Your task to perform on an android device: open sync settings in chrome Image 0: 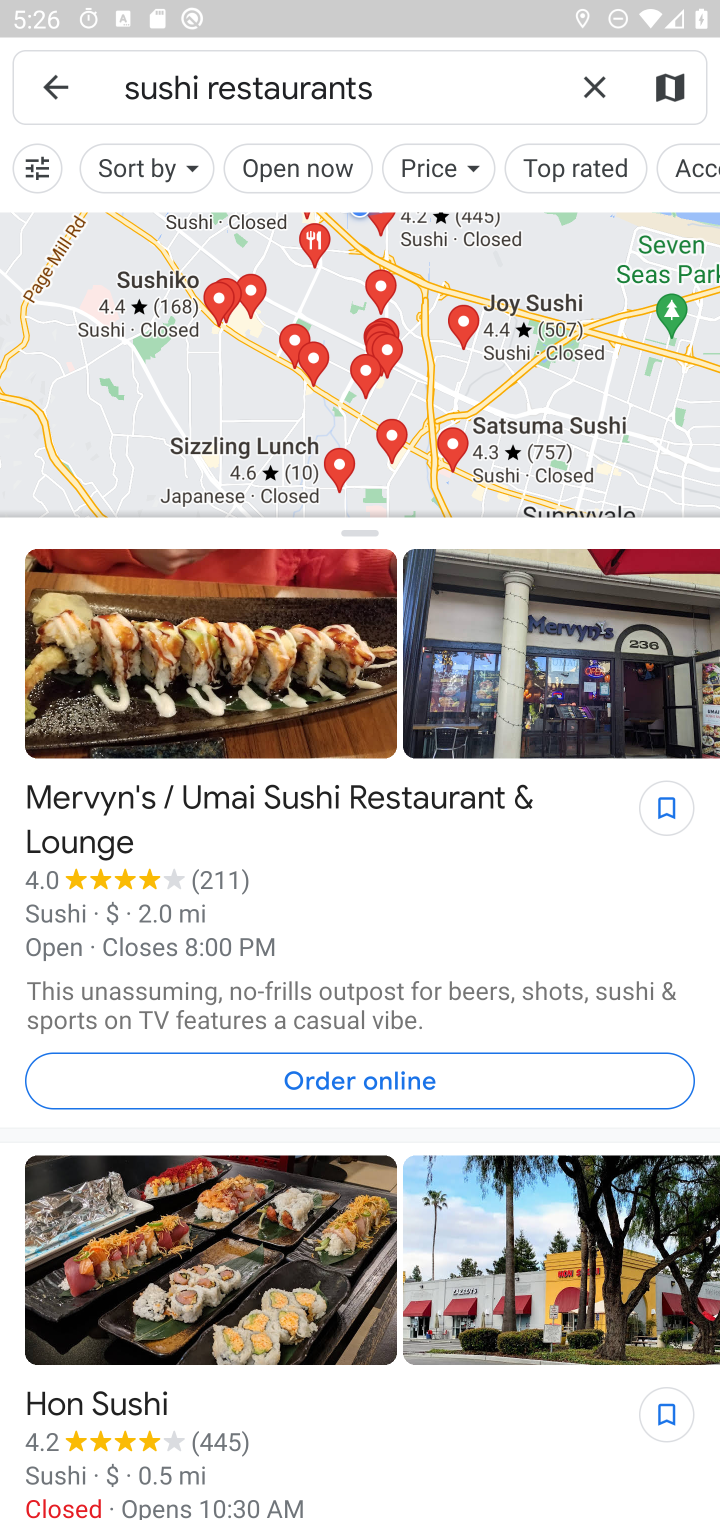
Step 0: press home button
Your task to perform on an android device: open sync settings in chrome Image 1: 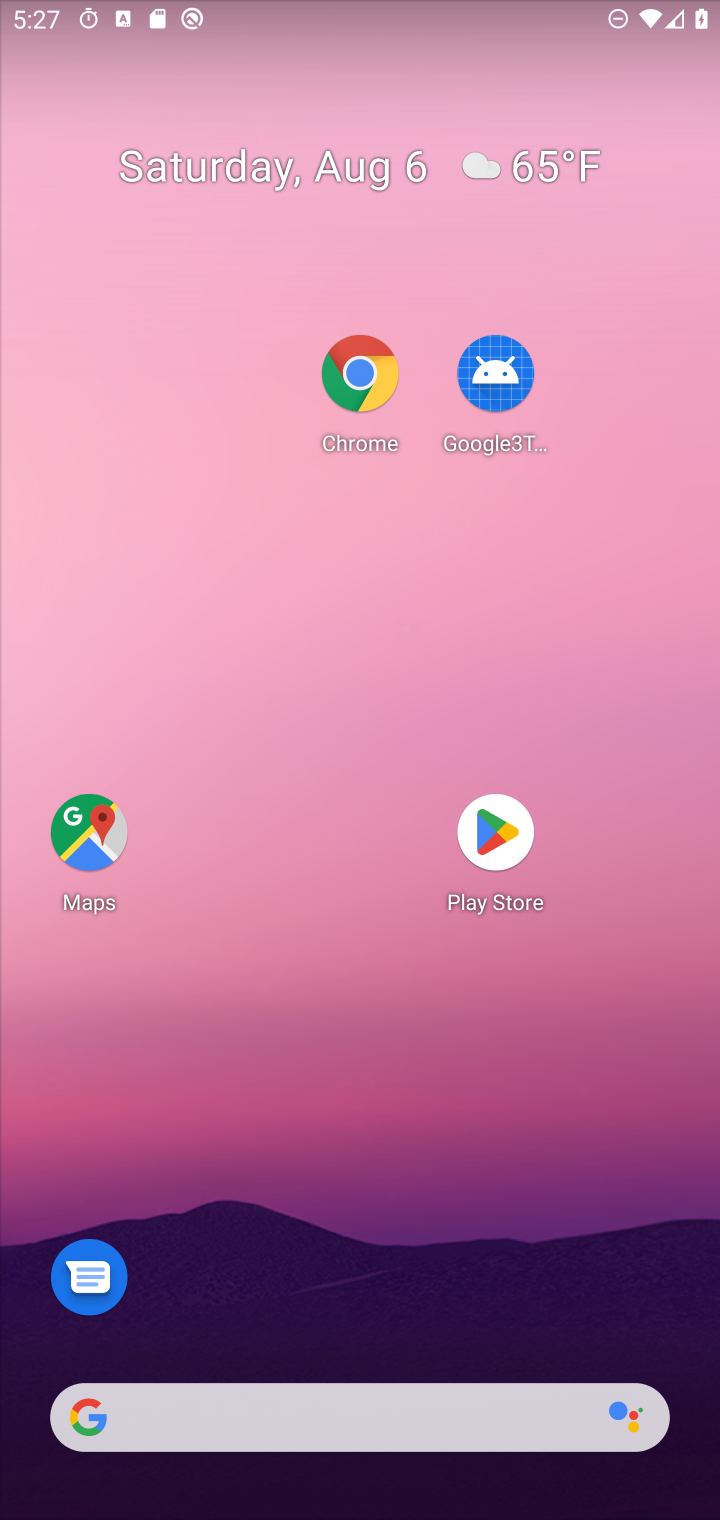
Step 1: drag from (270, 1459) to (350, 114)
Your task to perform on an android device: open sync settings in chrome Image 2: 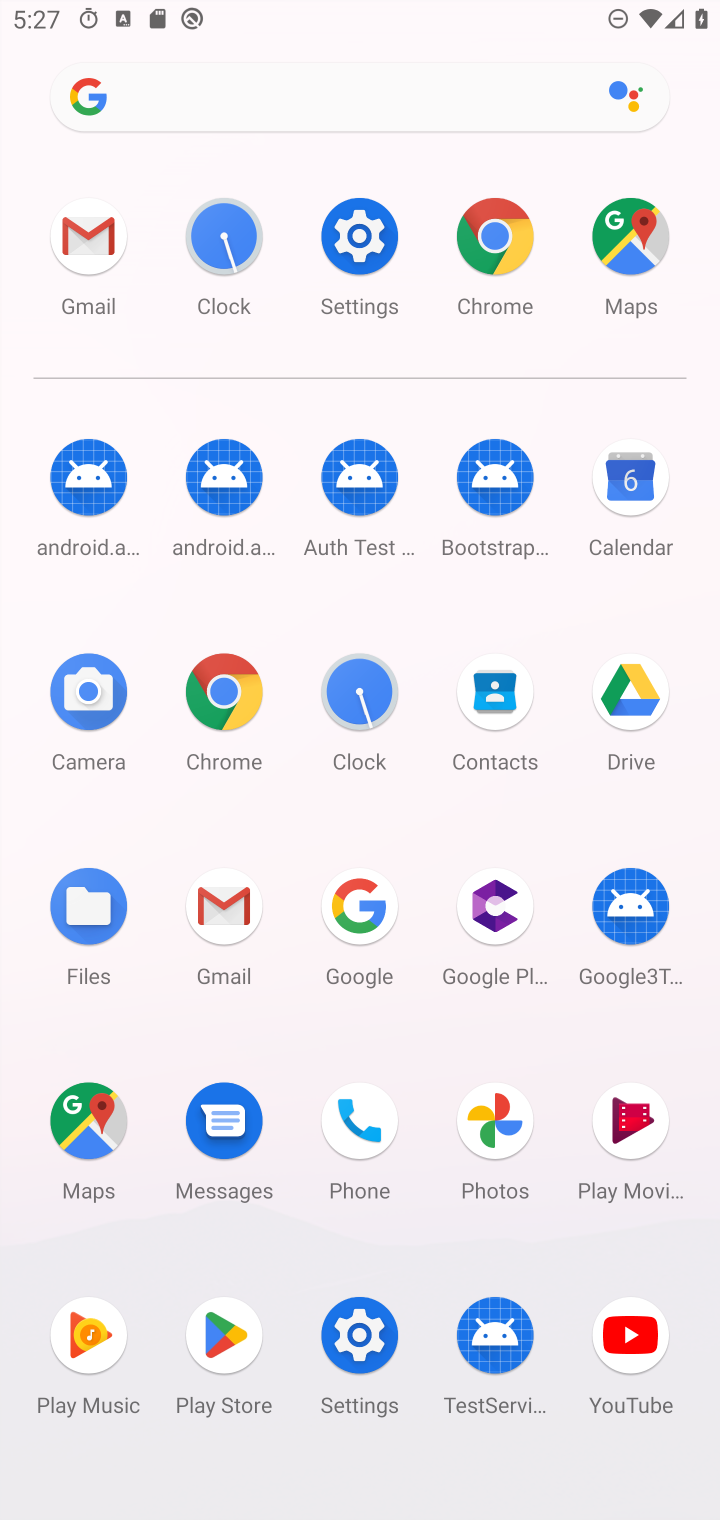
Step 2: click (229, 705)
Your task to perform on an android device: open sync settings in chrome Image 3: 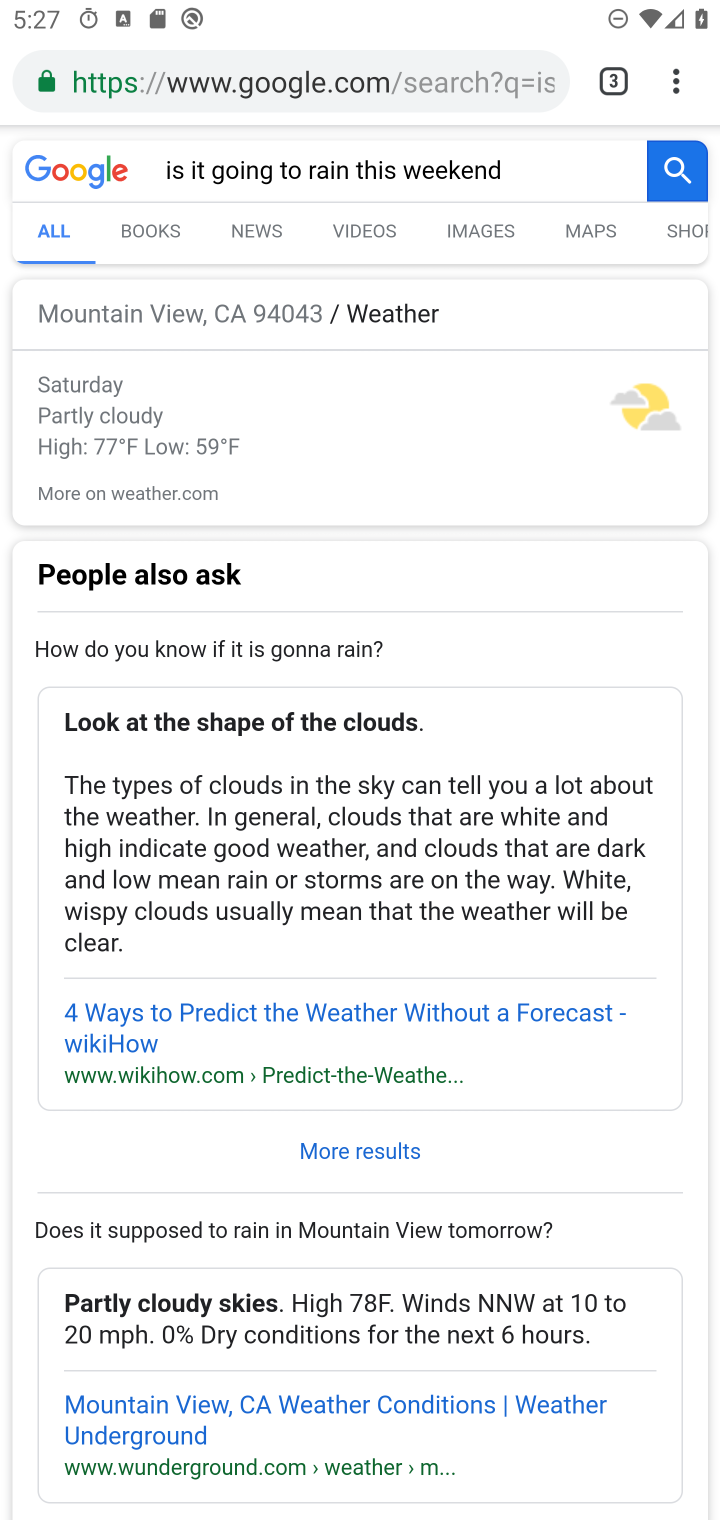
Step 3: drag from (676, 76) to (396, 916)
Your task to perform on an android device: open sync settings in chrome Image 4: 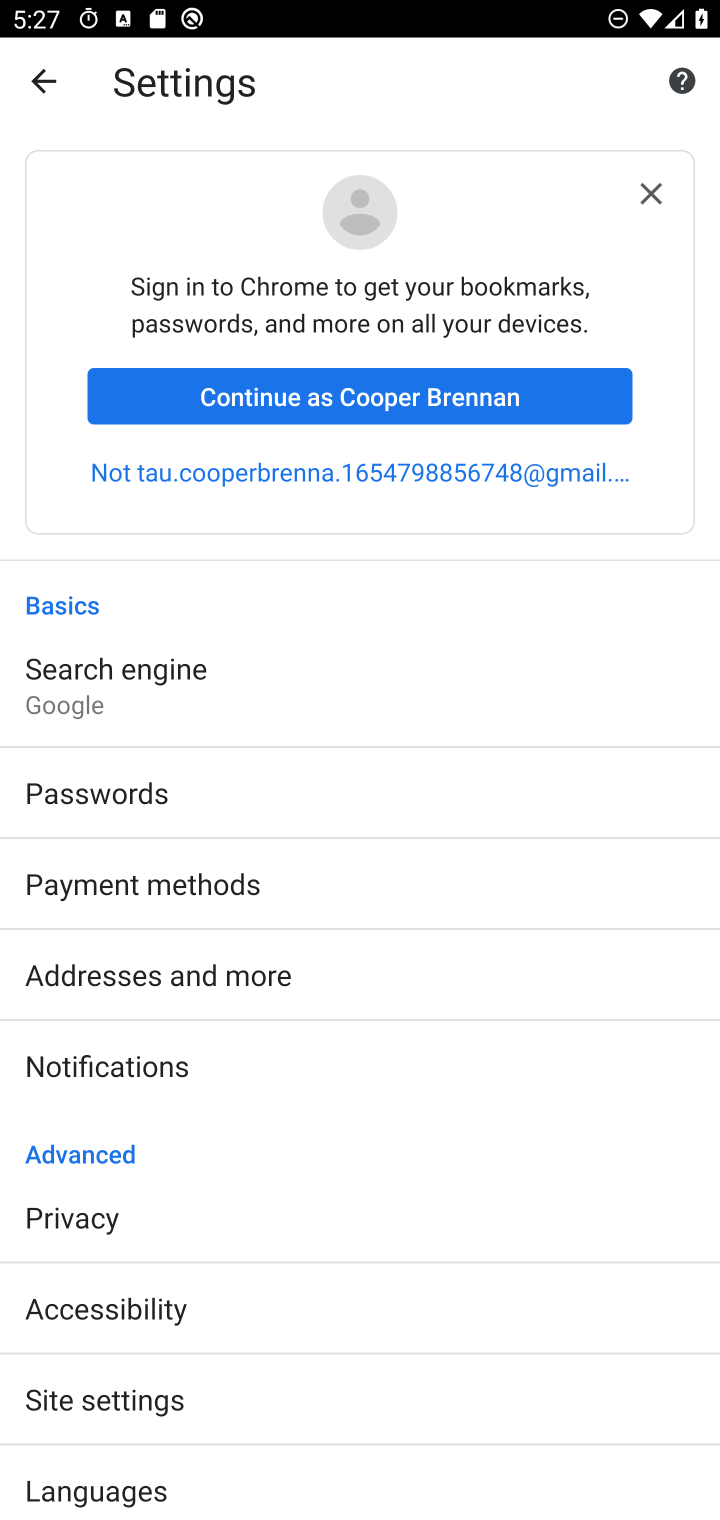
Step 4: click (300, 1392)
Your task to perform on an android device: open sync settings in chrome Image 5: 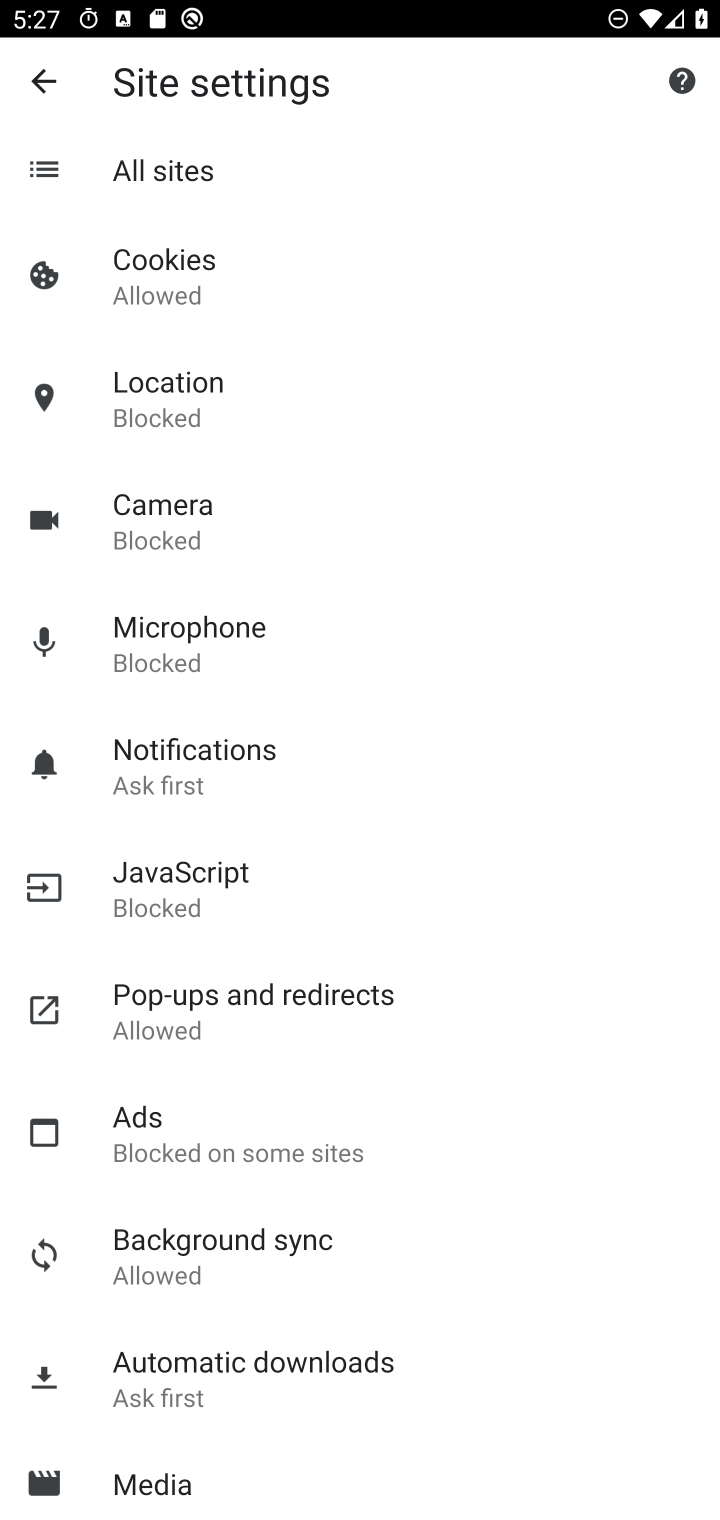
Step 5: click (293, 1266)
Your task to perform on an android device: open sync settings in chrome Image 6: 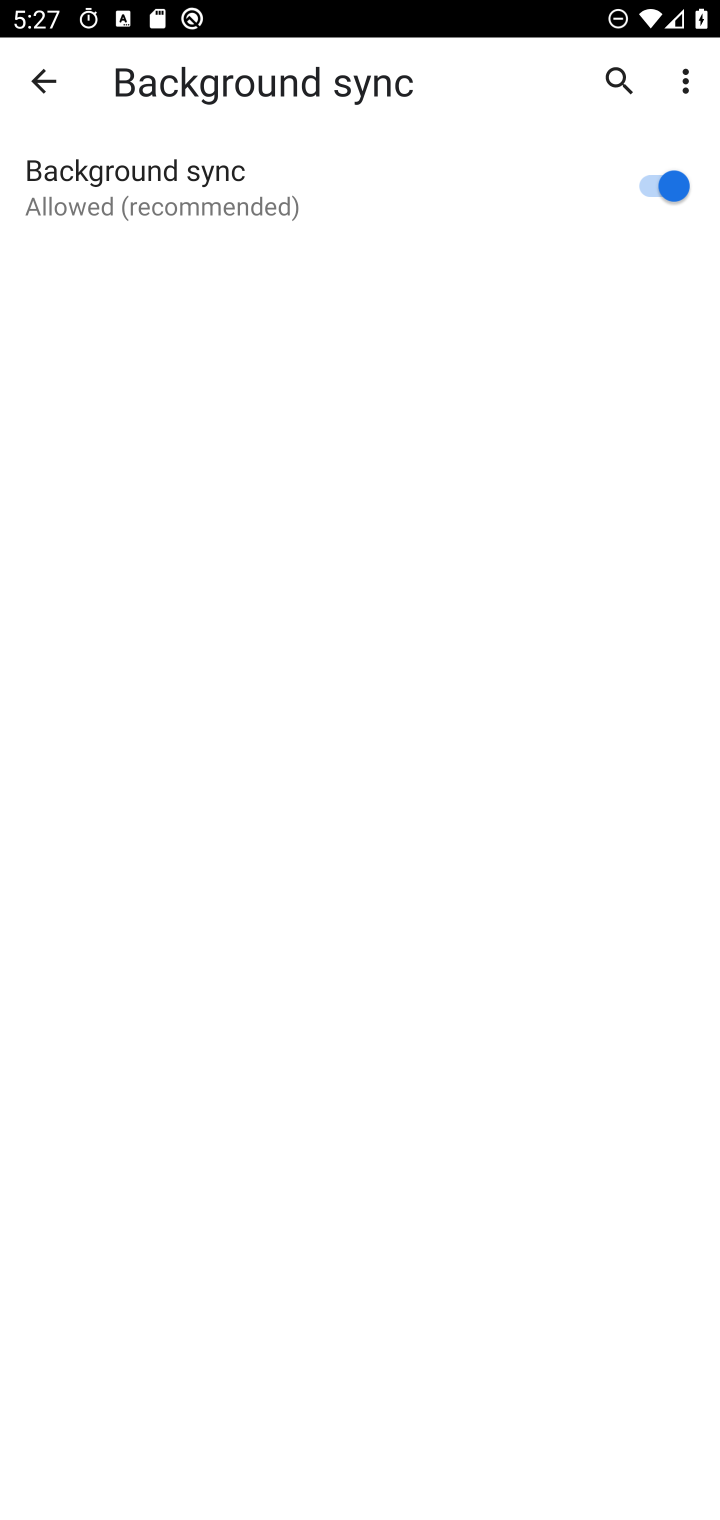
Step 6: task complete